Your task to perform on an android device: turn off javascript in the chrome app Image 0: 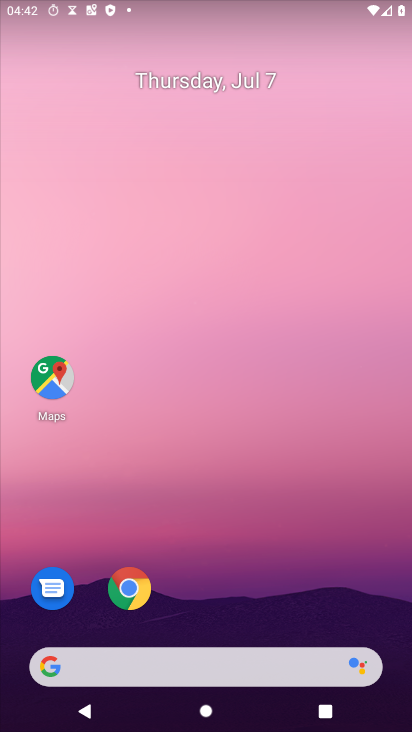
Step 0: press home button
Your task to perform on an android device: turn off javascript in the chrome app Image 1: 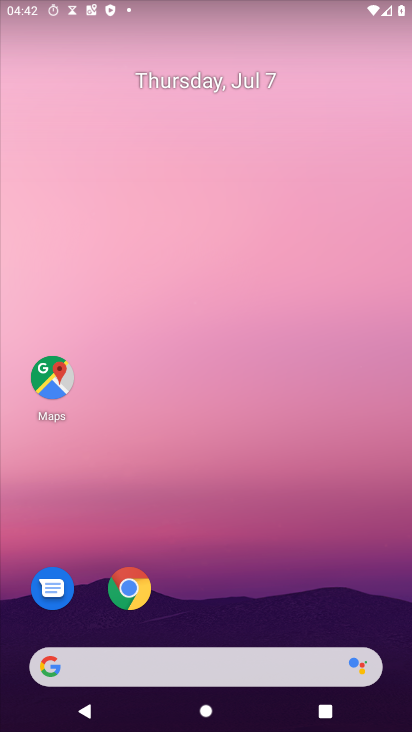
Step 1: drag from (232, 617) to (210, 194)
Your task to perform on an android device: turn off javascript in the chrome app Image 2: 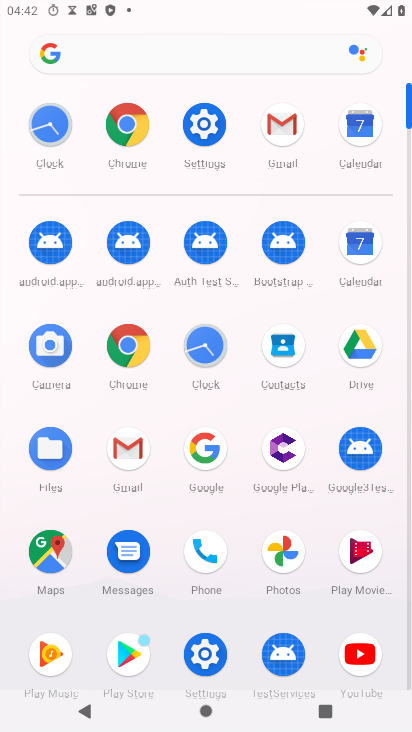
Step 2: click (135, 133)
Your task to perform on an android device: turn off javascript in the chrome app Image 3: 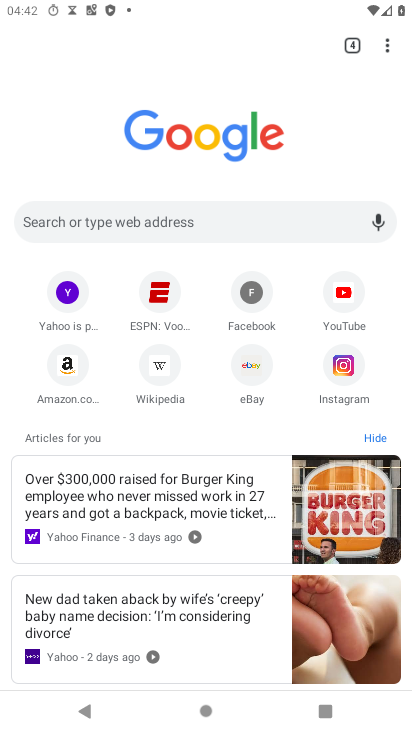
Step 3: drag from (392, 46) to (240, 385)
Your task to perform on an android device: turn off javascript in the chrome app Image 4: 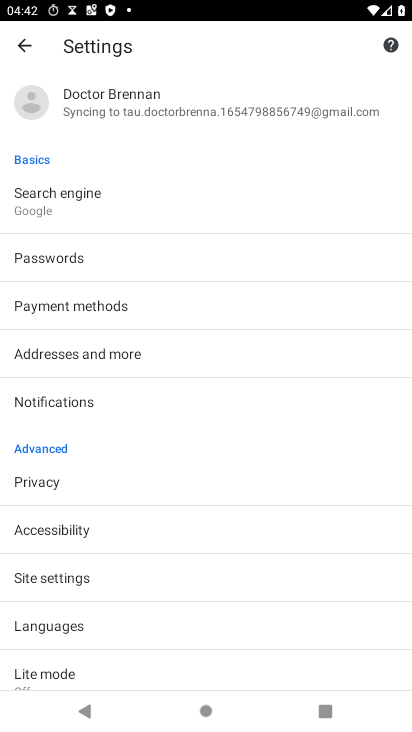
Step 4: click (62, 579)
Your task to perform on an android device: turn off javascript in the chrome app Image 5: 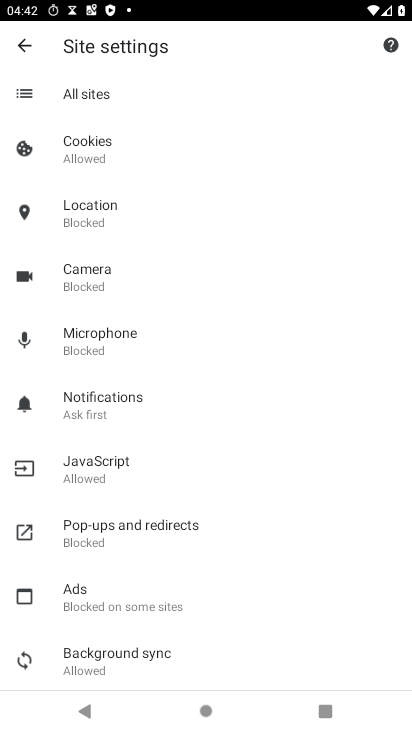
Step 5: click (76, 461)
Your task to perform on an android device: turn off javascript in the chrome app Image 6: 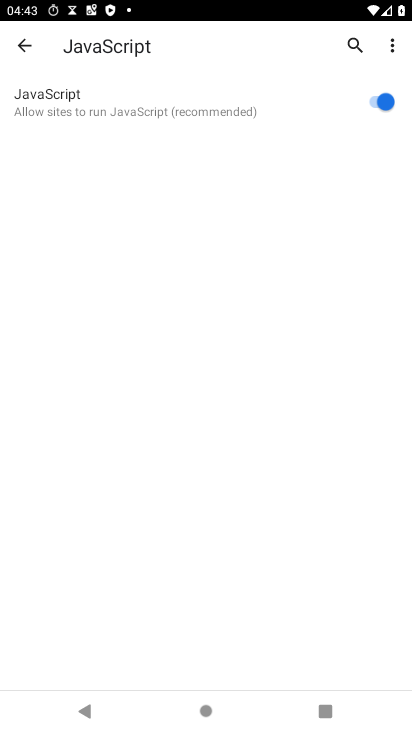
Step 6: click (383, 101)
Your task to perform on an android device: turn off javascript in the chrome app Image 7: 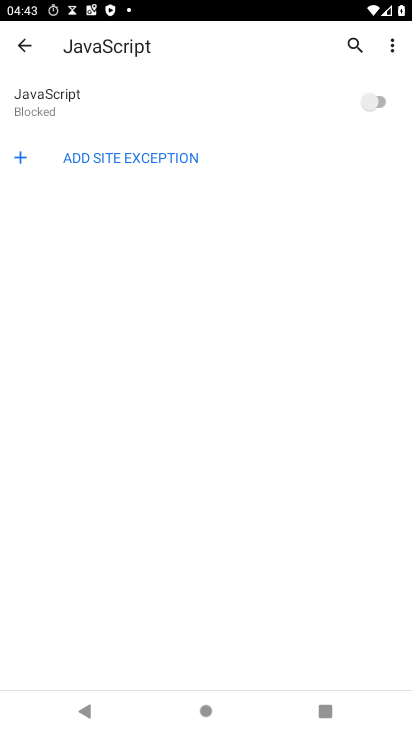
Step 7: task complete